Your task to perform on an android device: Turn on the flashlight Image 0: 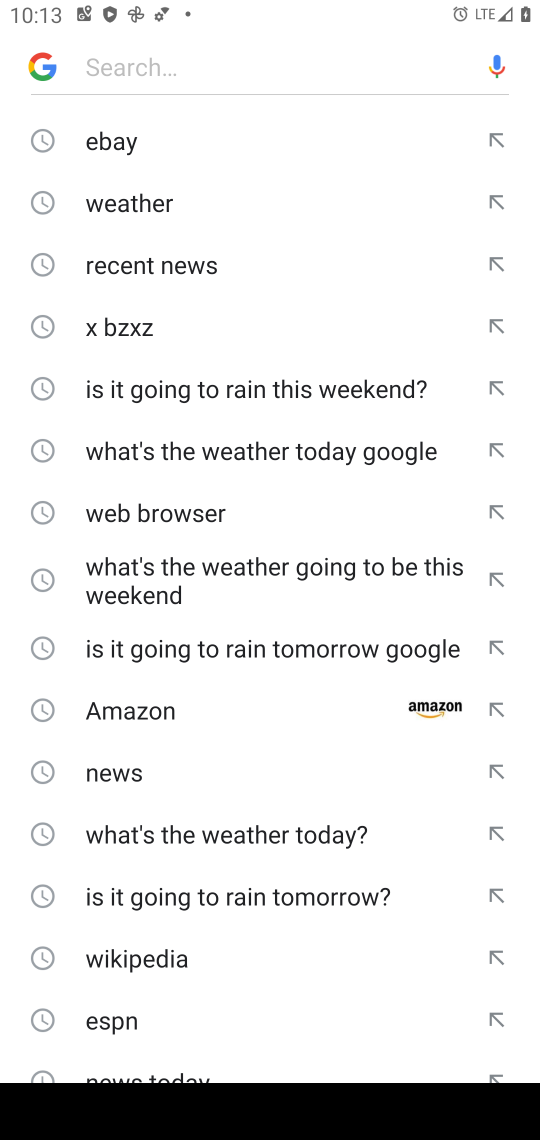
Step 0: press home button
Your task to perform on an android device: Turn on the flashlight Image 1: 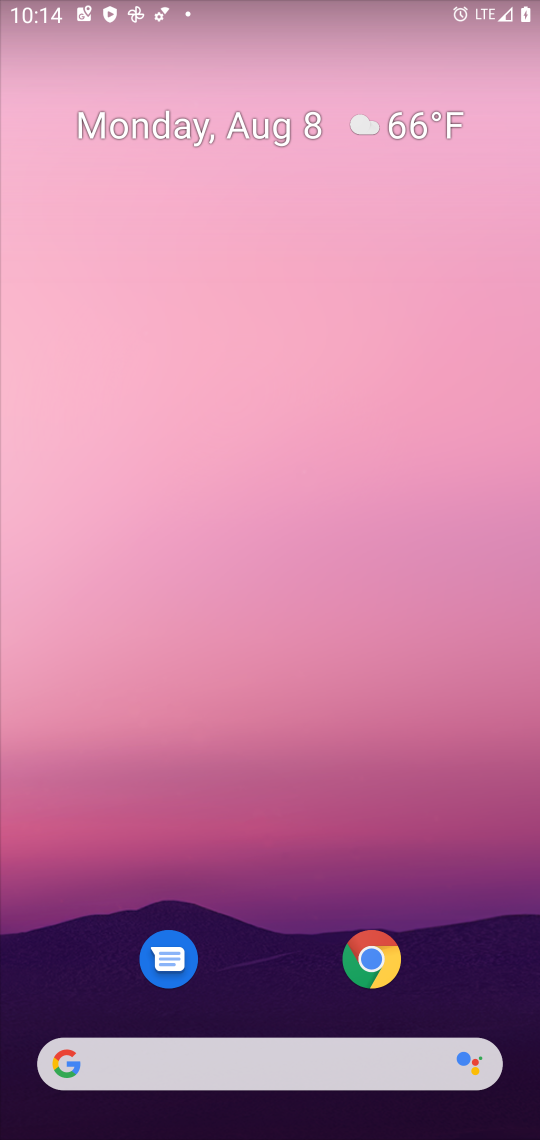
Step 1: drag from (463, 941) to (243, 59)
Your task to perform on an android device: Turn on the flashlight Image 2: 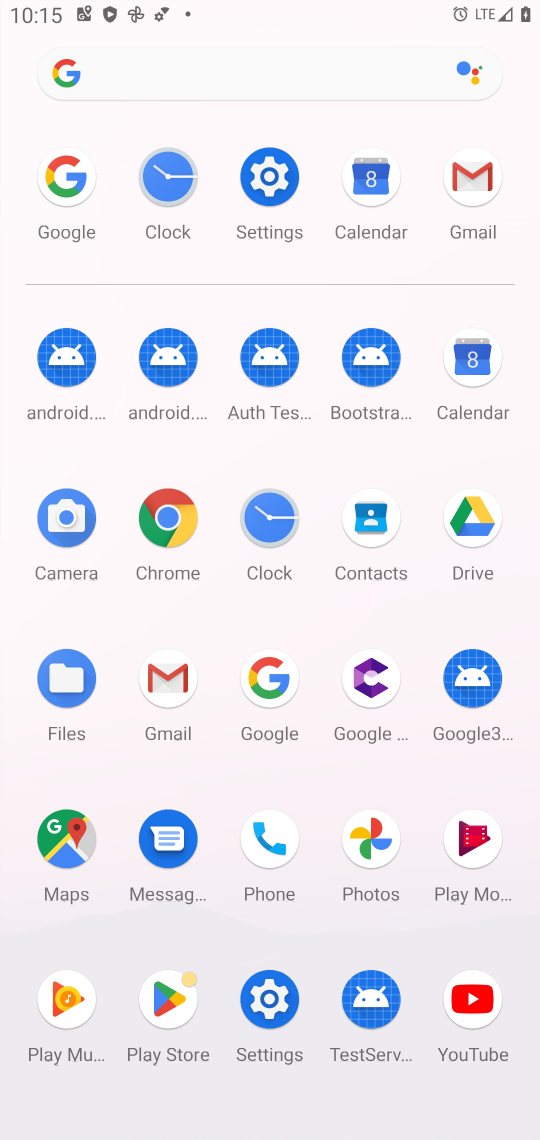
Step 2: click (269, 1020)
Your task to perform on an android device: Turn on the flashlight Image 3: 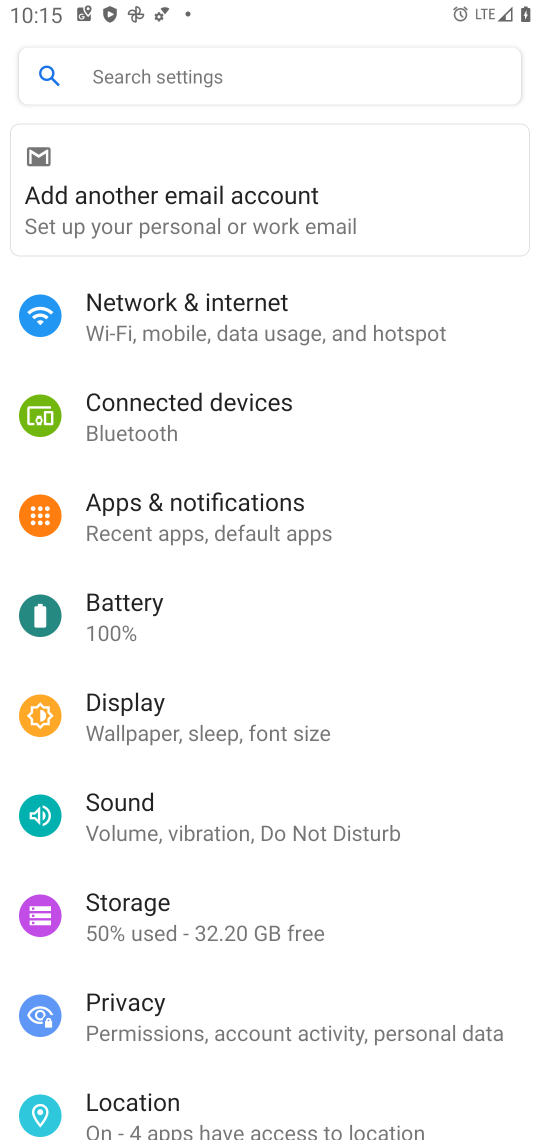
Step 3: task complete